Your task to perform on an android device: Search for pizza restaurants on Maps Image 0: 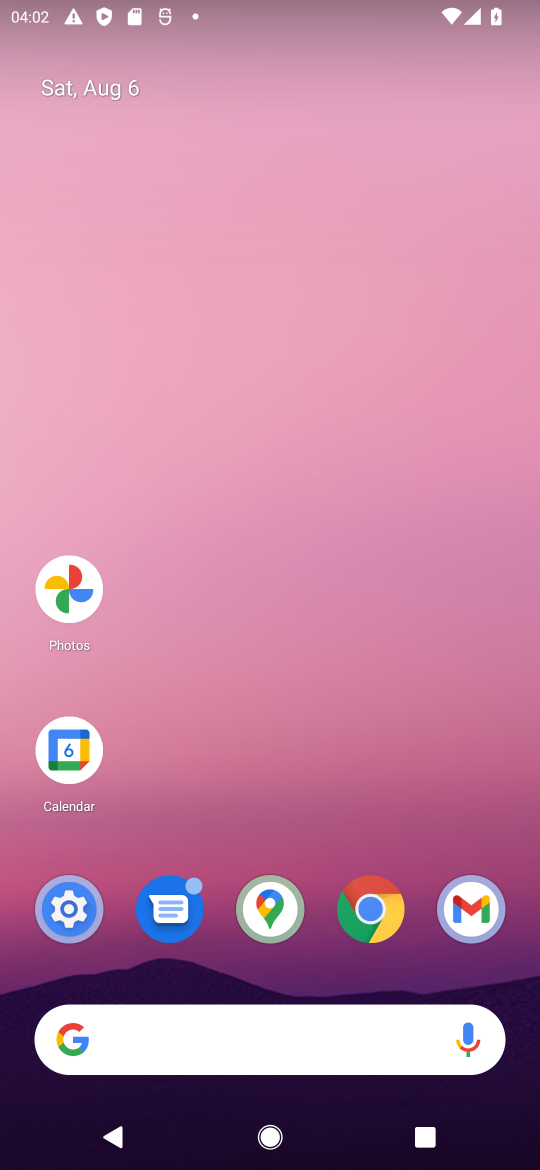
Step 0: click (274, 897)
Your task to perform on an android device: Search for pizza restaurants on Maps Image 1: 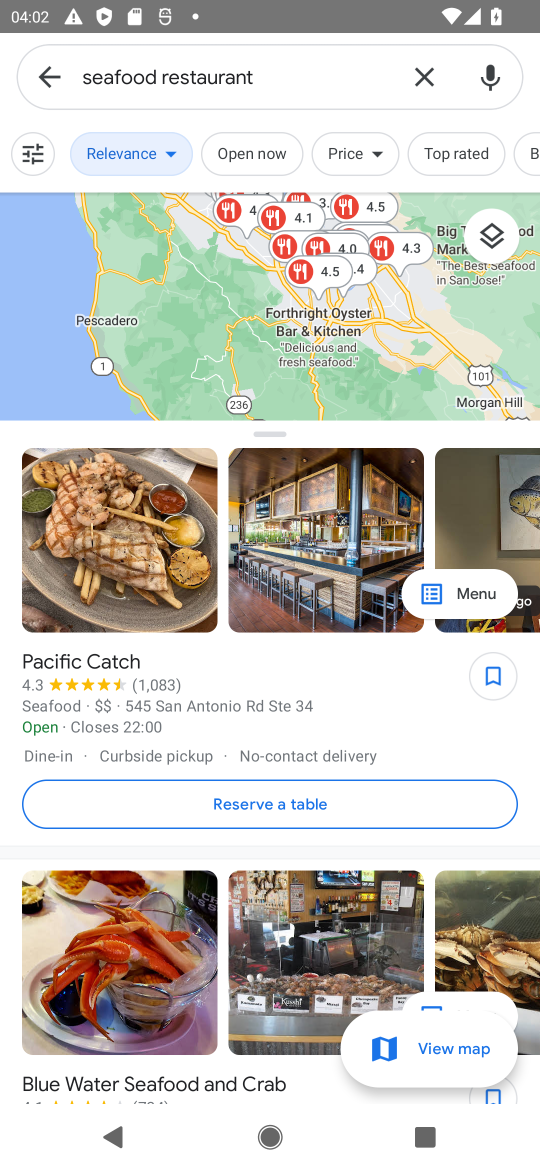
Step 1: click (415, 75)
Your task to perform on an android device: Search for pizza restaurants on Maps Image 2: 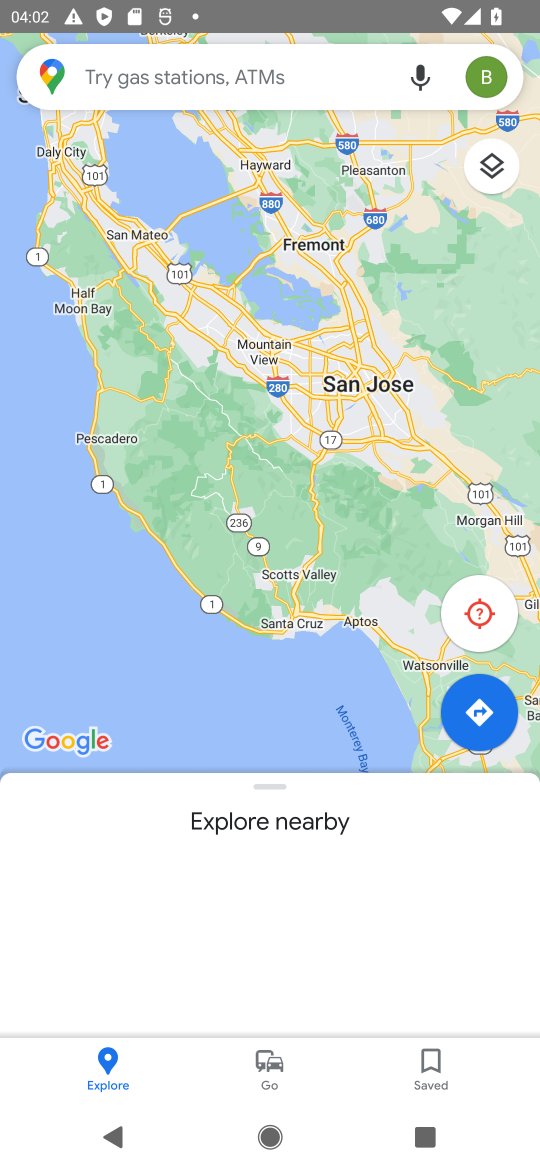
Step 2: click (217, 67)
Your task to perform on an android device: Search for pizza restaurants on Maps Image 3: 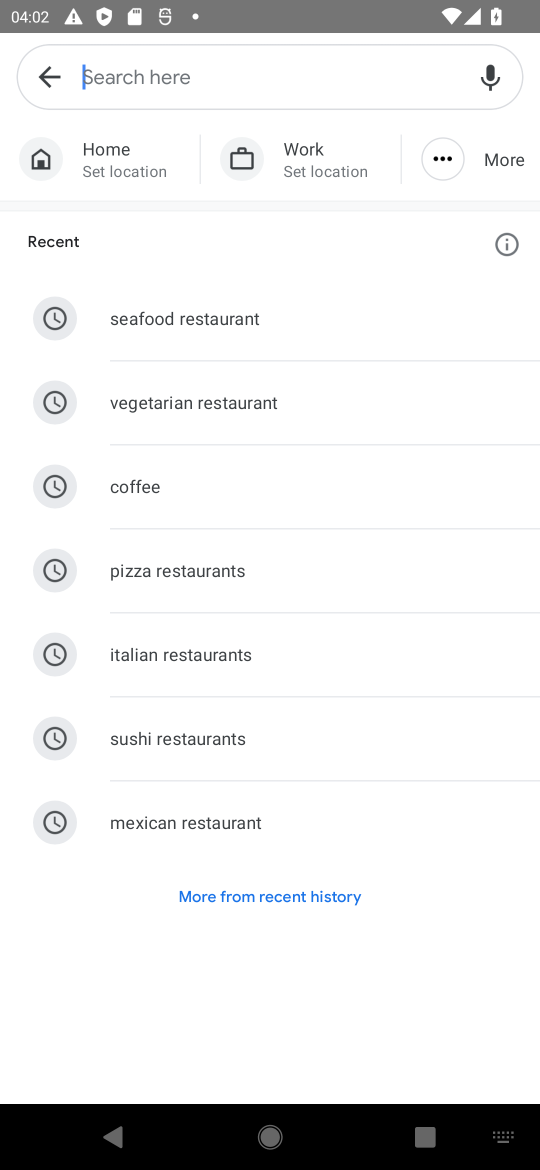
Step 3: click (213, 569)
Your task to perform on an android device: Search for pizza restaurants on Maps Image 4: 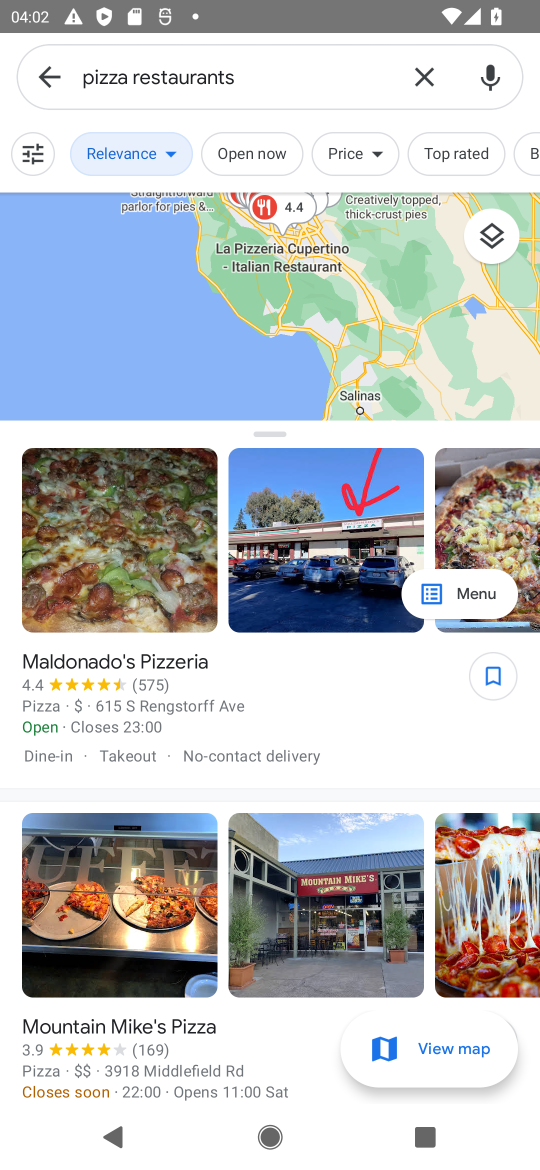
Step 4: task complete